Your task to perform on an android device: set an alarm Image 0: 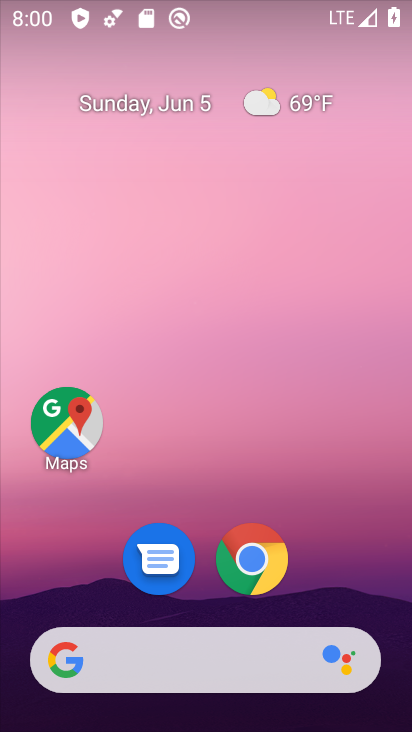
Step 0: drag from (335, 566) to (267, 50)
Your task to perform on an android device: set an alarm Image 1: 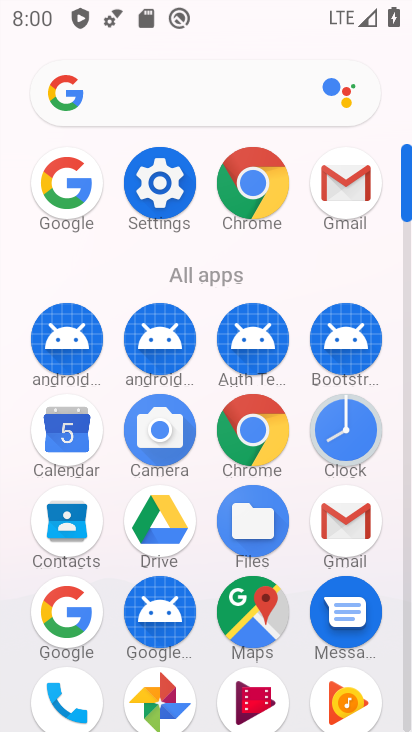
Step 1: click (350, 404)
Your task to perform on an android device: set an alarm Image 2: 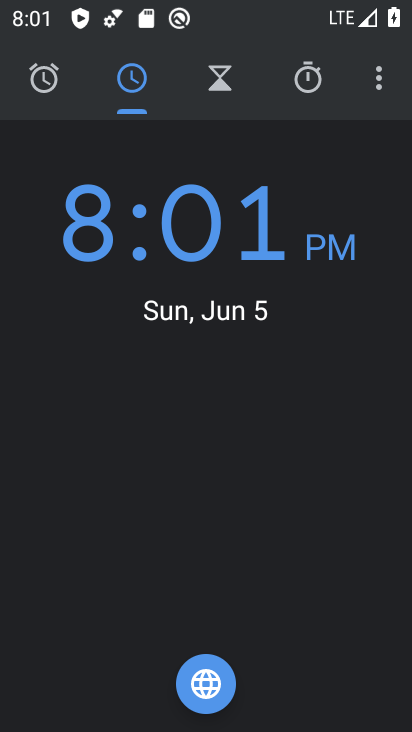
Step 2: click (58, 82)
Your task to perform on an android device: set an alarm Image 3: 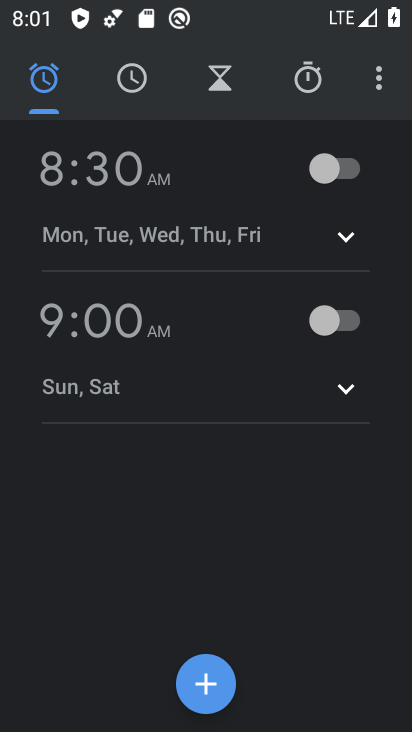
Step 3: click (211, 690)
Your task to perform on an android device: set an alarm Image 4: 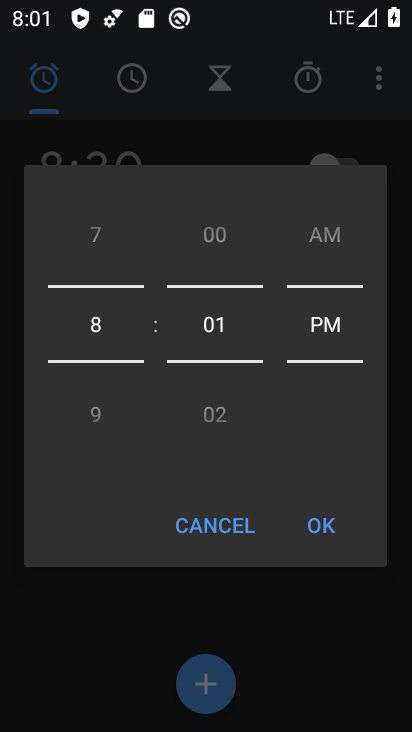
Step 4: click (322, 526)
Your task to perform on an android device: set an alarm Image 5: 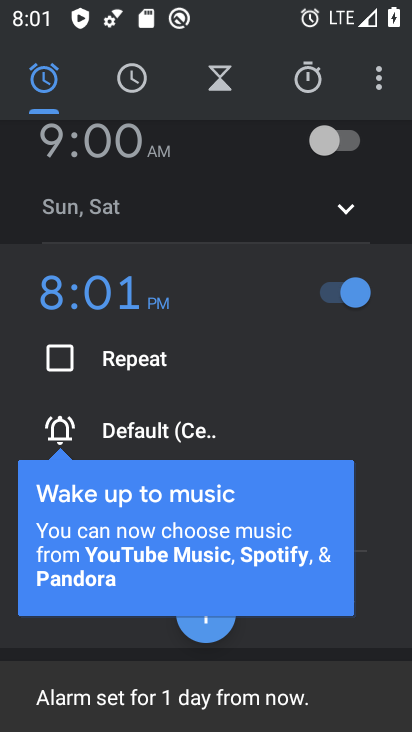
Step 5: task complete